Your task to perform on an android device: delete location history Image 0: 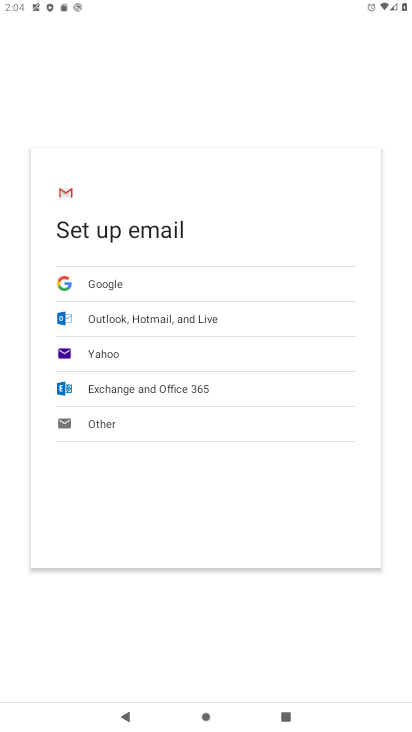
Step 0: press home button
Your task to perform on an android device: delete location history Image 1: 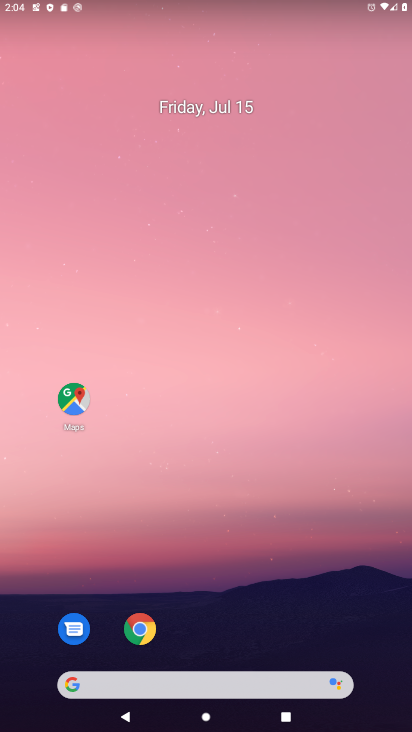
Step 1: drag from (308, 612) to (297, 117)
Your task to perform on an android device: delete location history Image 2: 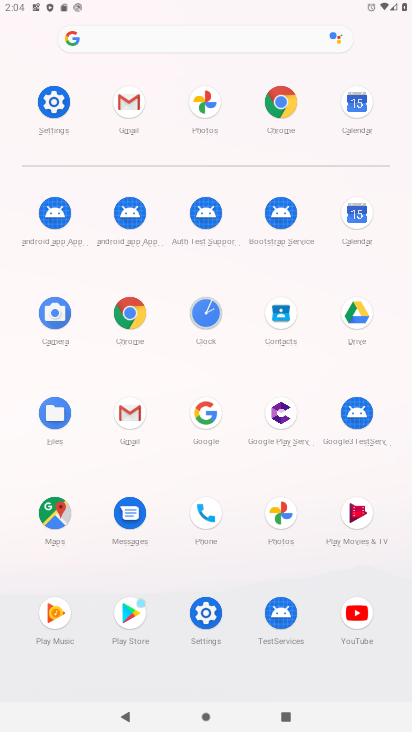
Step 2: click (59, 508)
Your task to perform on an android device: delete location history Image 3: 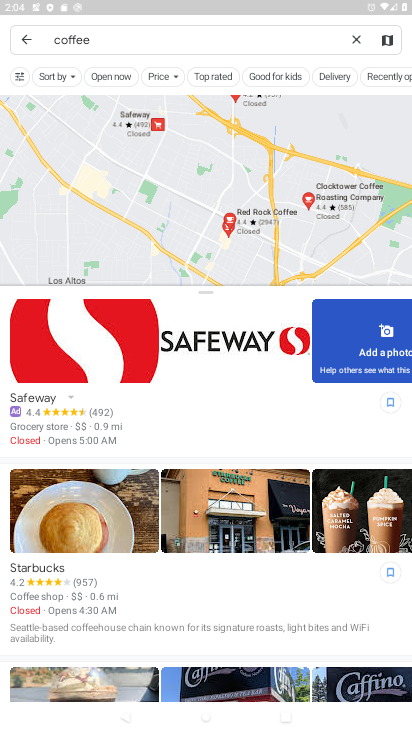
Step 3: click (30, 43)
Your task to perform on an android device: delete location history Image 4: 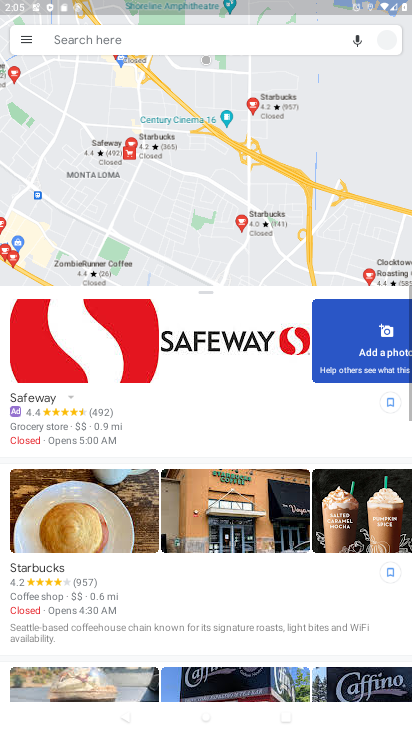
Step 4: click (30, 43)
Your task to perform on an android device: delete location history Image 5: 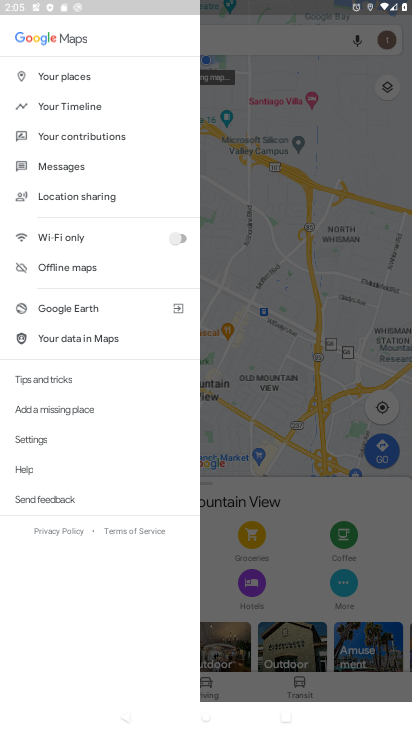
Step 5: click (32, 436)
Your task to perform on an android device: delete location history Image 6: 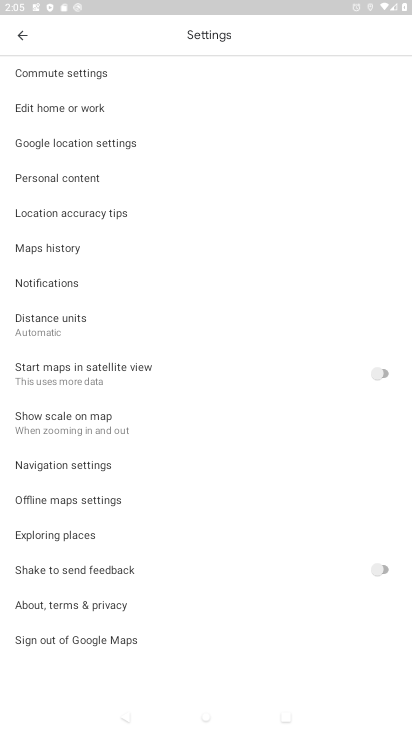
Step 6: click (44, 246)
Your task to perform on an android device: delete location history Image 7: 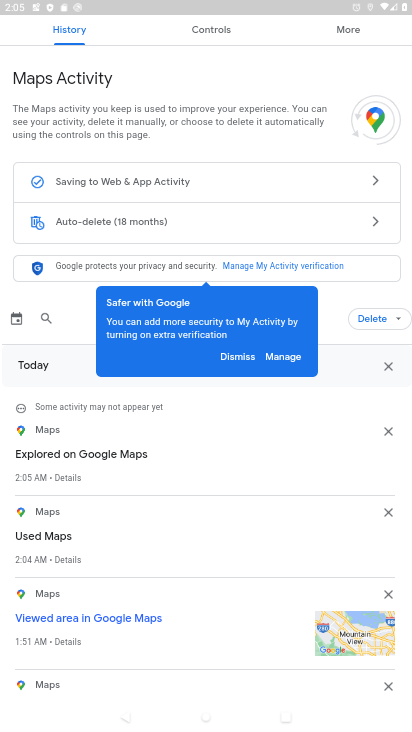
Step 7: click (385, 324)
Your task to perform on an android device: delete location history Image 8: 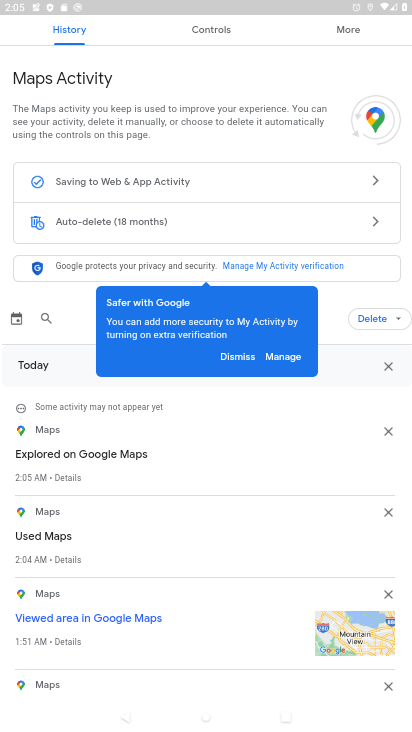
Step 8: click (390, 322)
Your task to perform on an android device: delete location history Image 9: 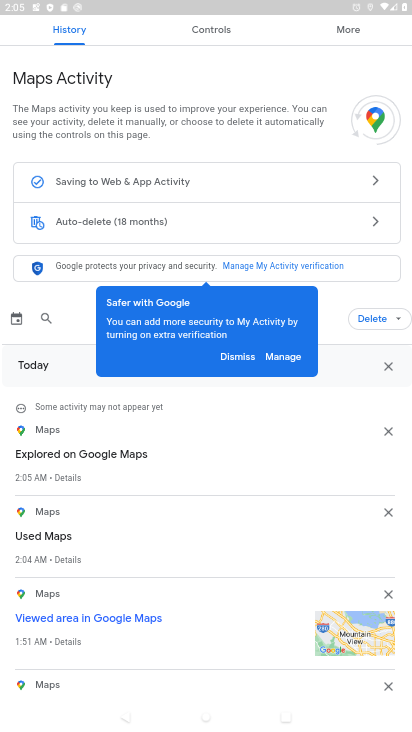
Step 9: click (249, 361)
Your task to perform on an android device: delete location history Image 10: 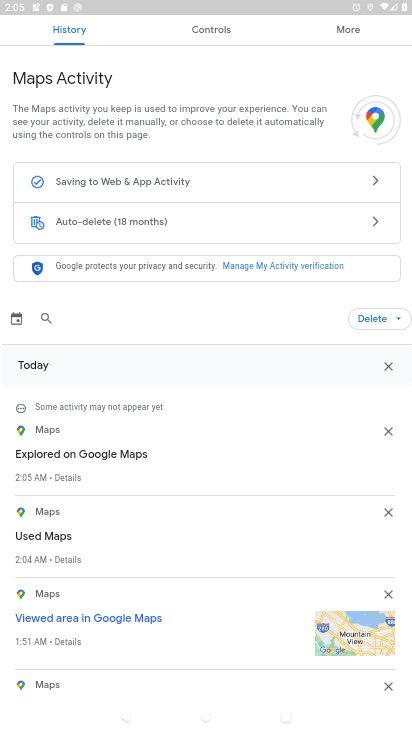
Step 10: click (389, 318)
Your task to perform on an android device: delete location history Image 11: 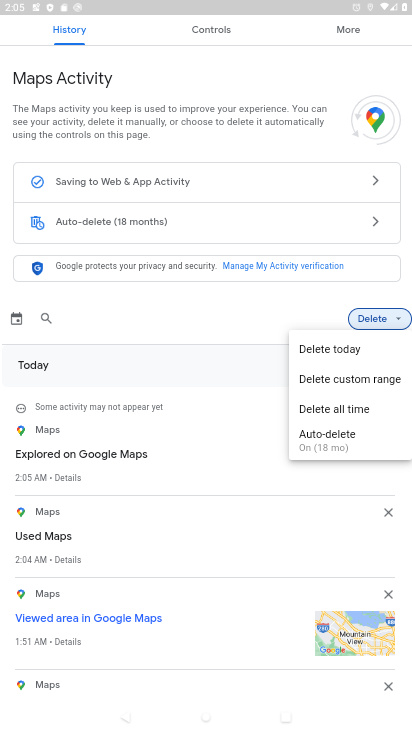
Step 11: click (330, 407)
Your task to perform on an android device: delete location history Image 12: 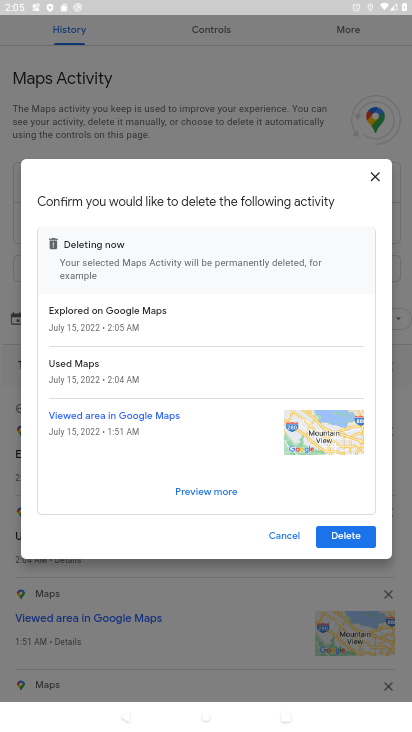
Step 12: click (360, 541)
Your task to perform on an android device: delete location history Image 13: 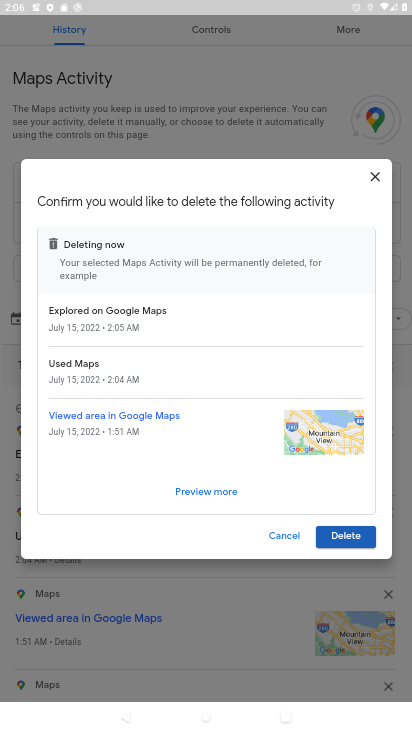
Step 13: click (360, 540)
Your task to perform on an android device: delete location history Image 14: 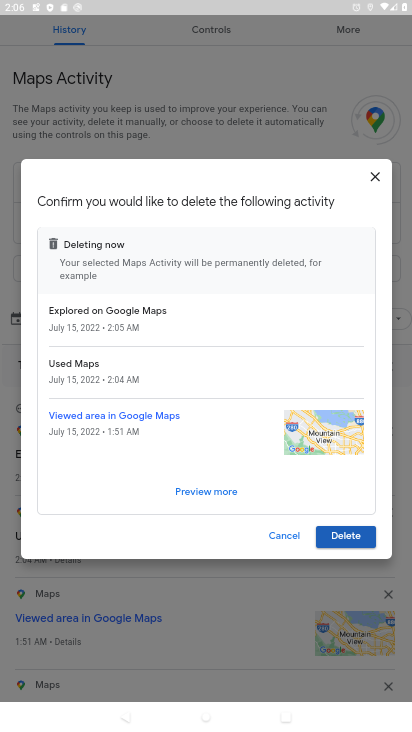
Step 14: click (356, 537)
Your task to perform on an android device: delete location history Image 15: 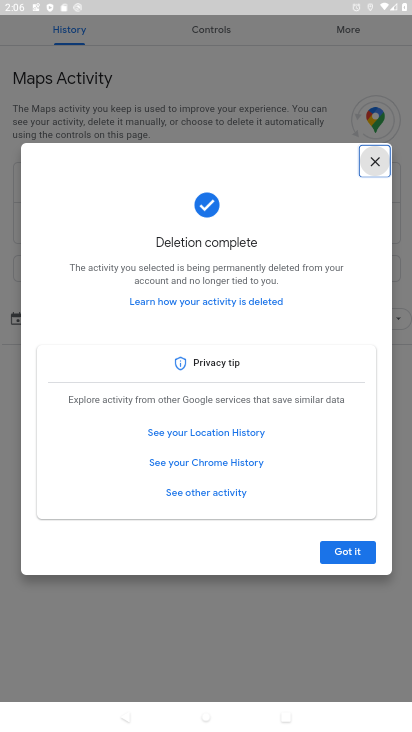
Step 15: task complete